Your task to perform on an android device: Open Google Image 0: 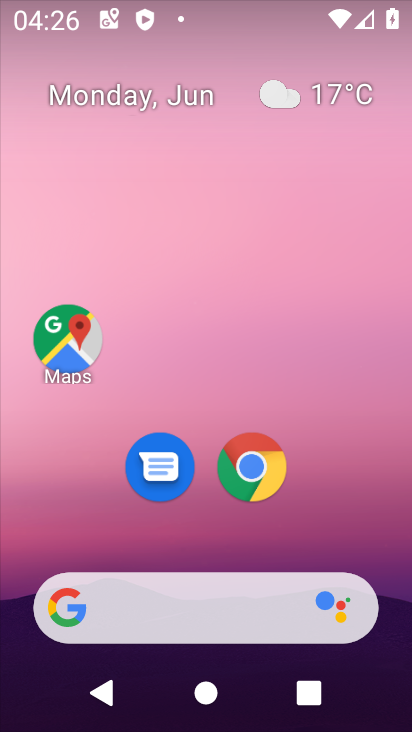
Step 0: click (69, 344)
Your task to perform on an android device: Open Google Image 1: 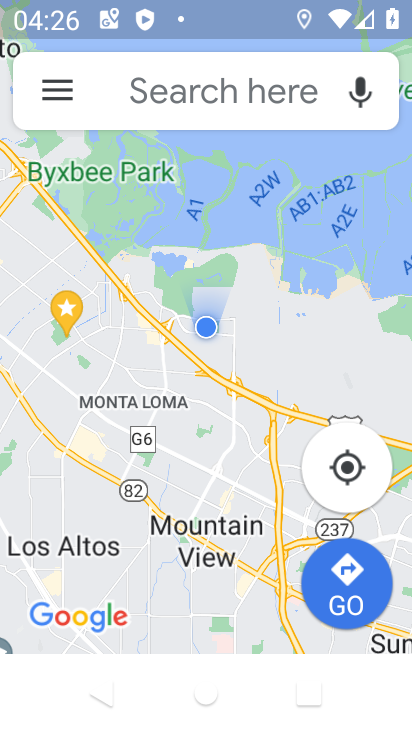
Step 1: click (192, 88)
Your task to perform on an android device: Open Google Image 2: 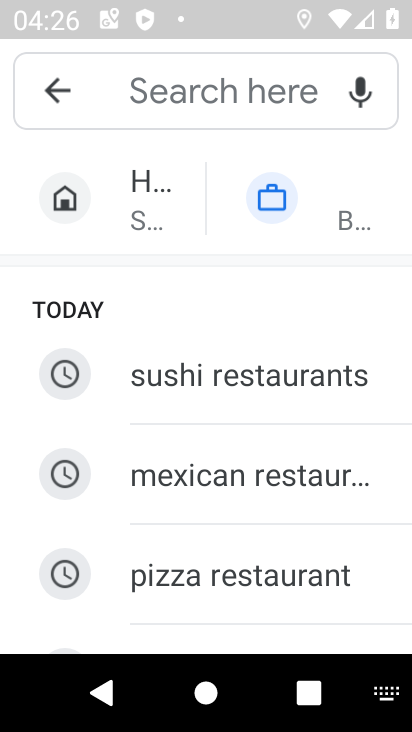
Step 2: type "coffee shops"
Your task to perform on an android device: Open Google Image 3: 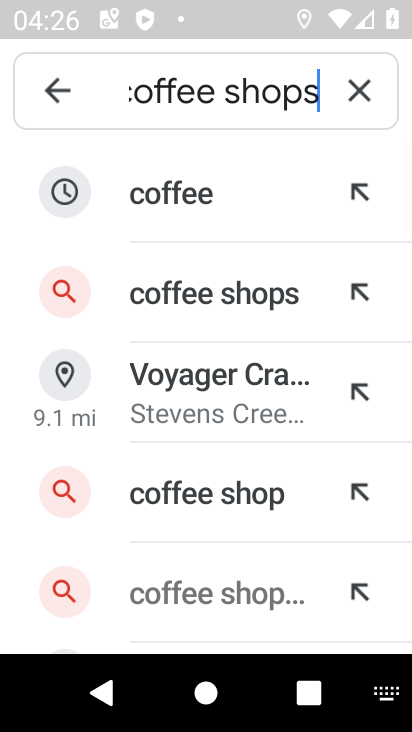
Step 3: click (229, 284)
Your task to perform on an android device: Open Google Image 4: 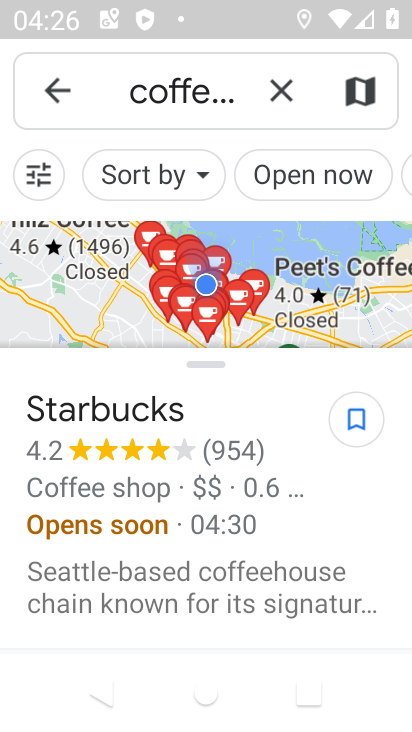
Step 4: press home button
Your task to perform on an android device: Open Google Image 5: 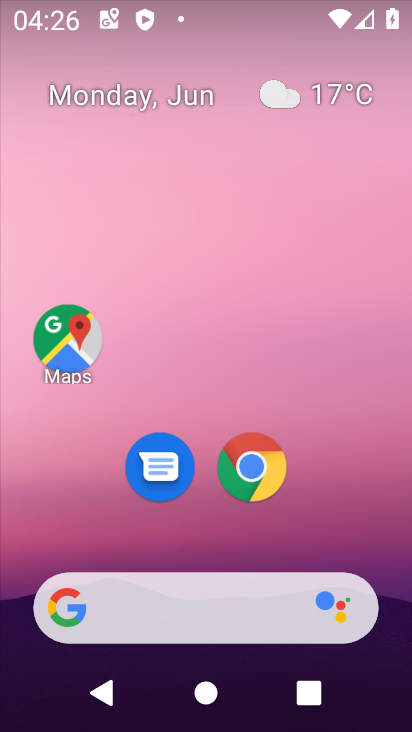
Step 5: click (69, 609)
Your task to perform on an android device: Open Google Image 6: 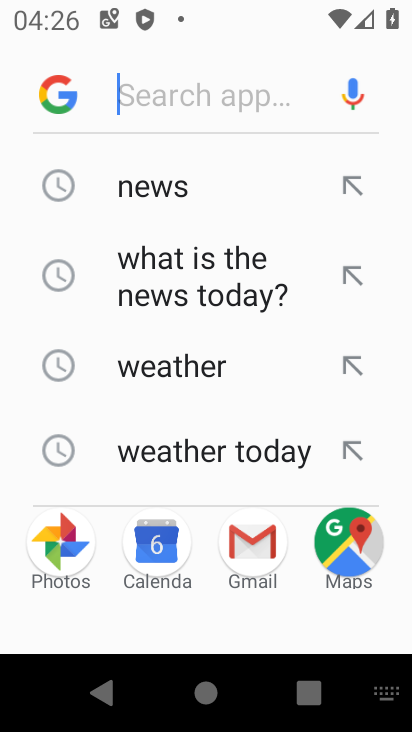
Step 6: click (62, 108)
Your task to perform on an android device: Open Google Image 7: 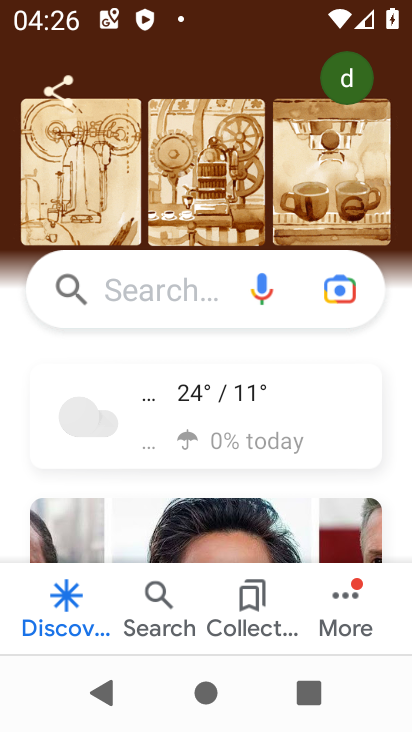
Step 7: task complete